Your task to perform on an android device: Go to notification settings Image 0: 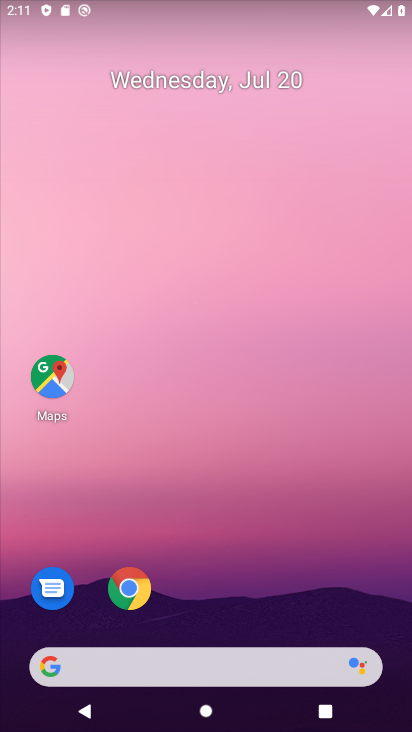
Step 0: drag from (228, 622) to (204, 260)
Your task to perform on an android device: Go to notification settings Image 1: 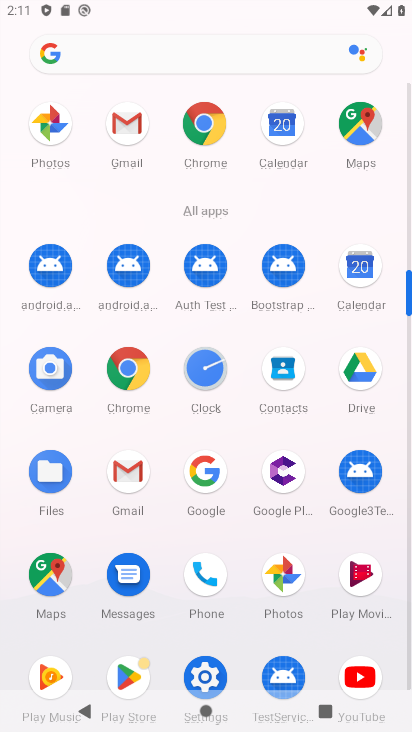
Step 1: click (189, 667)
Your task to perform on an android device: Go to notification settings Image 2: 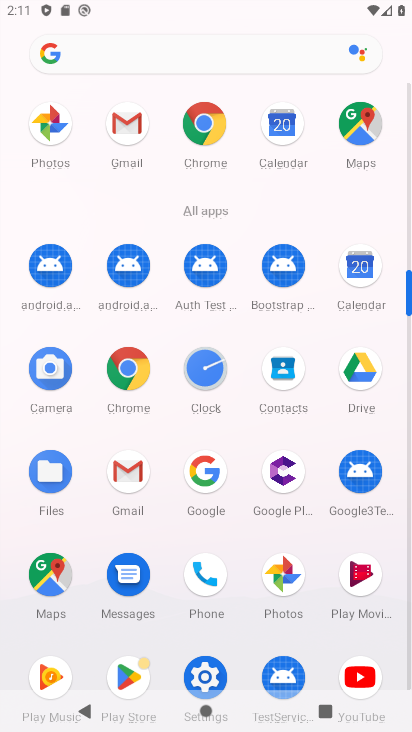
Step 2: click (190, 667)
Your task to perform on an android device: Go to notification settings Image 3: 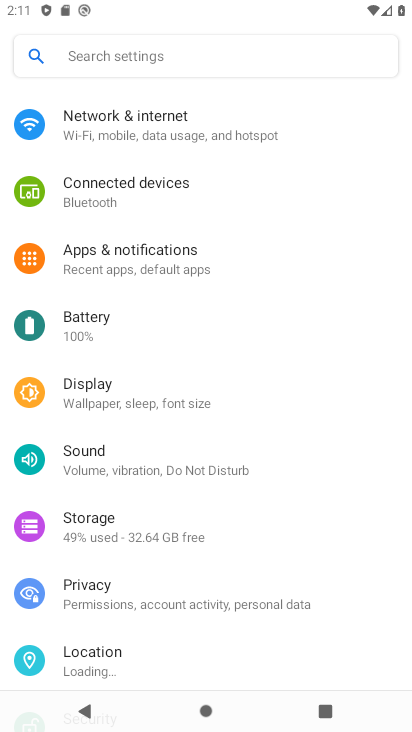
Step 3: click (199, 670)
Your task to perform on an android device: Go to notification settings Image 4: 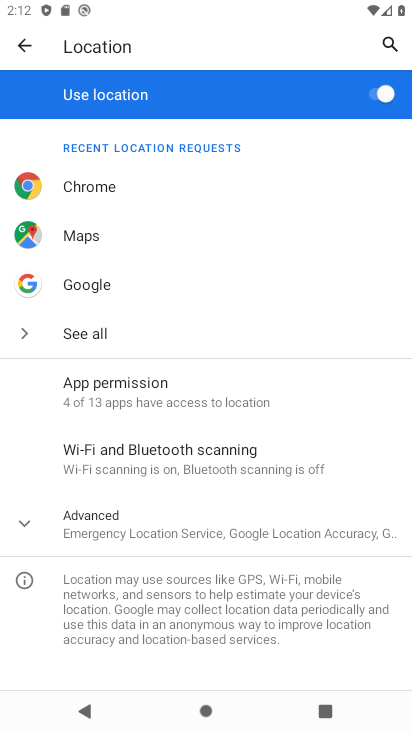
Step 4: click (24, 33)
Your task to perform on an android device: Go to notification settings Image 5: 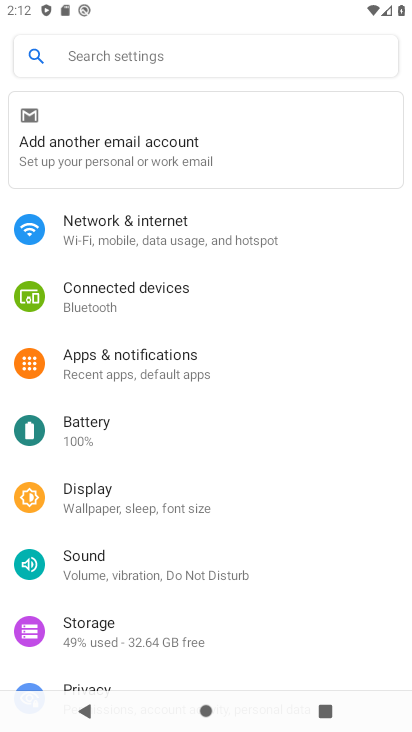
Step 5: click (129, 364)
Your task to perform on an android device: Go to notification settings Image 6: 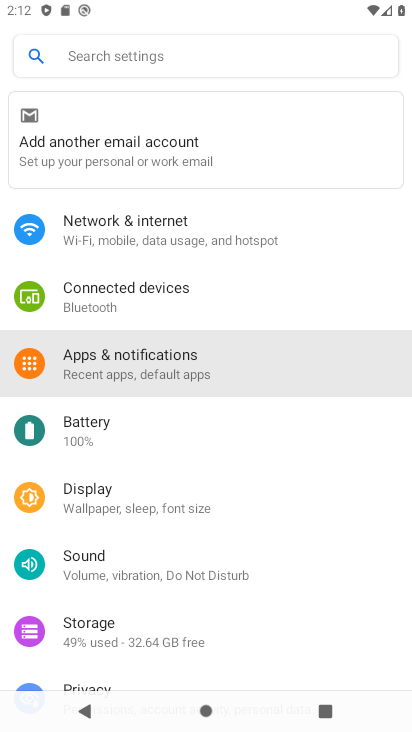
Step 6: click (131, 360)
Your task to perform on an android device: Go to notification settings Image 7: 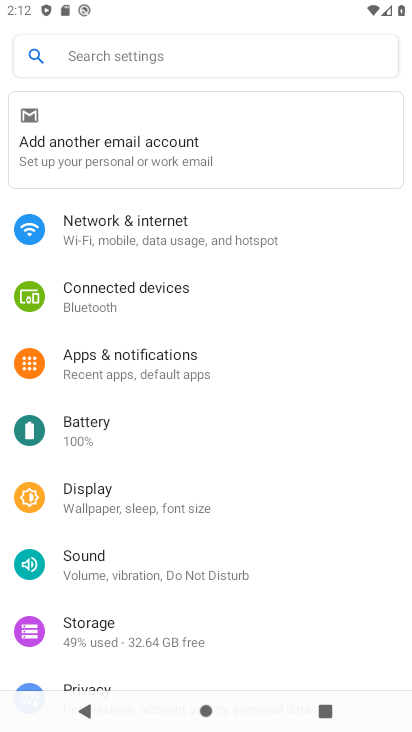
Step 7: click (134, 360)
Your task to perform on an android device: Go to notification settings Image 8: 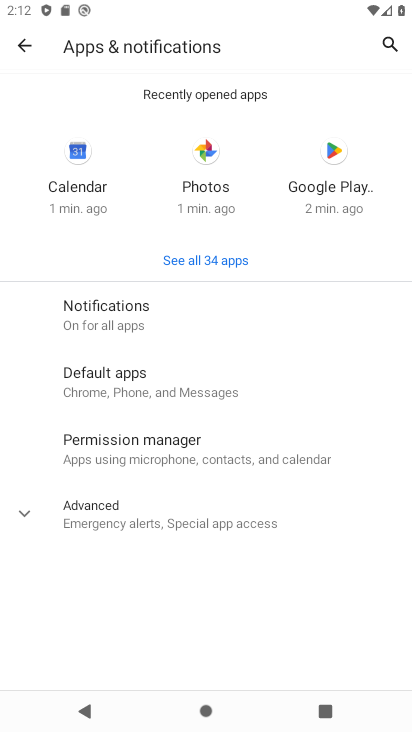
Step 8: click (104, 311)
Your task to perform on an android device: Go to notification settings Image 9: 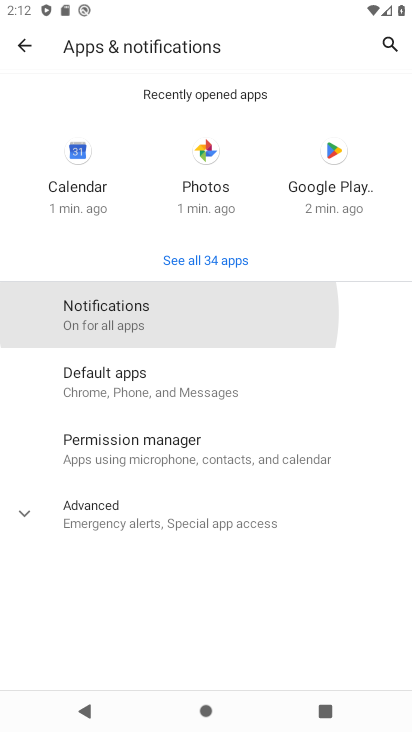
Step 9: click (108, 310)
Your task to perform on an android device: Go to notification settings Image 10: 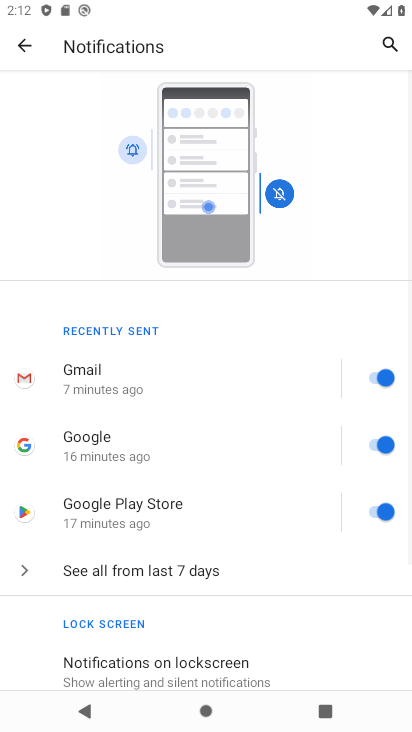
Step 10: task complete